Your task to perform on an android device: Open Google Chrome and open the bookmarks view Image 0: 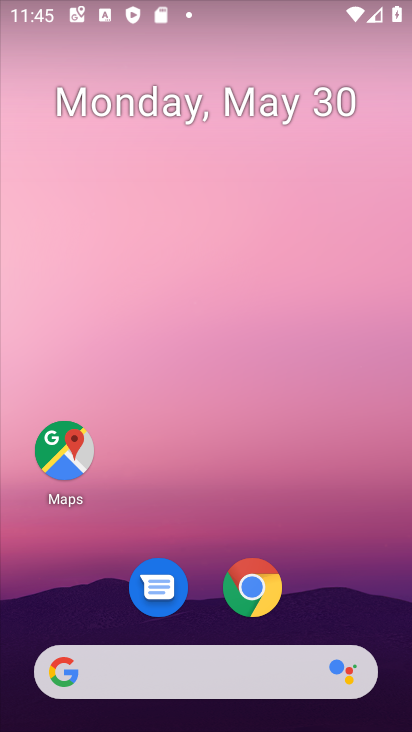
Step 0: click (261, 587)
Your task to perform on an android device: Open Google Chrome and open the bookmarks view Image 1: 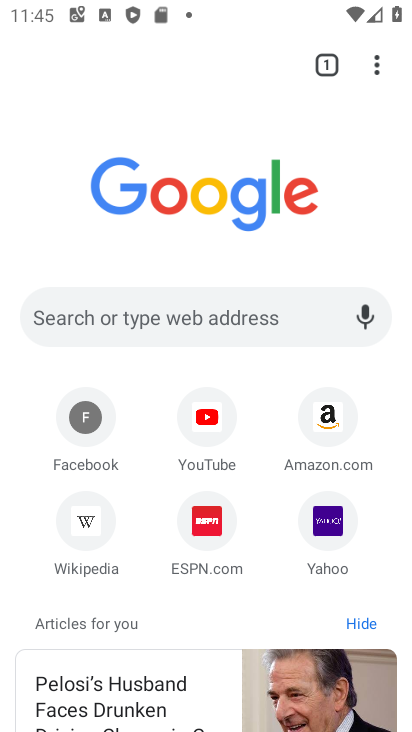
Step 1: click (390, 63)
Your task to perform on an android device: Open Google Chrome and open the bookmarks view Image 2: 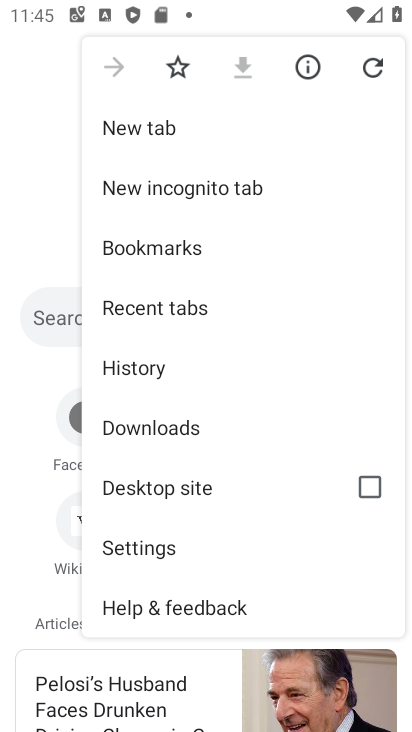
Step 2: click (154, 235)
Your task to perform on an android device: Open Google Chrome and open the bookmarks view Image 3: 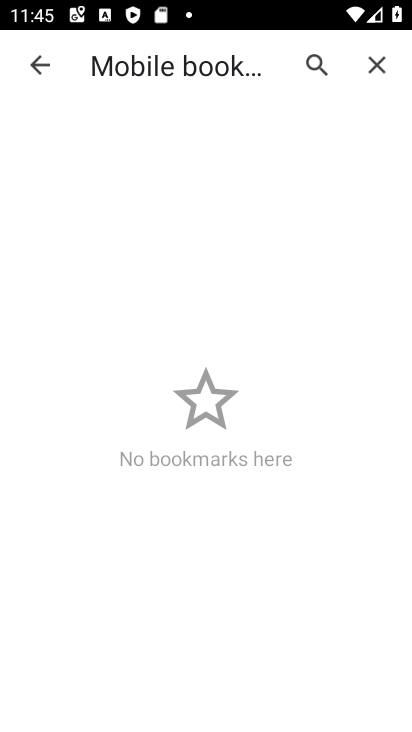
Step 3: task complete